Your task to perform on an android device: toggle airplane mode Image 0: 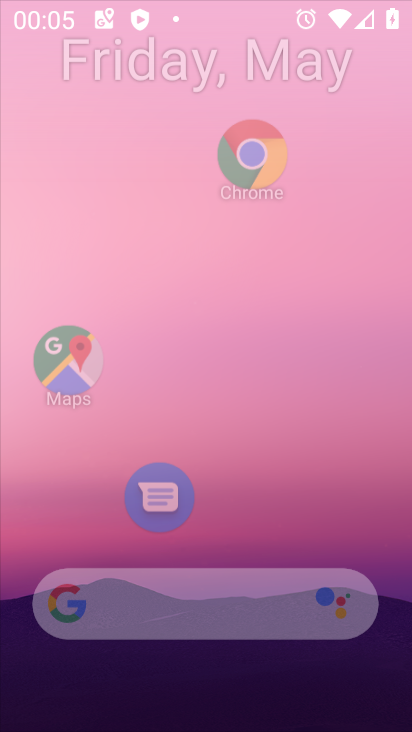
Step 0: drag from (221, 299) to (235, 56)
Your task to perform on an android device: toggle airplane mode Image 1: 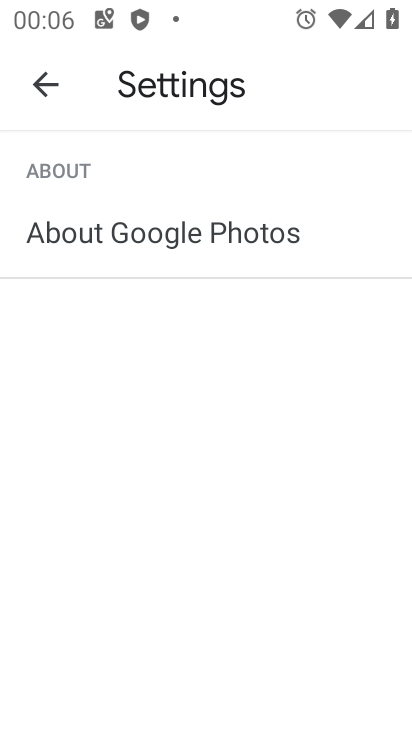
Step 1: press home button
Your task to perform on an android device: toggle airplane mode Image 2: 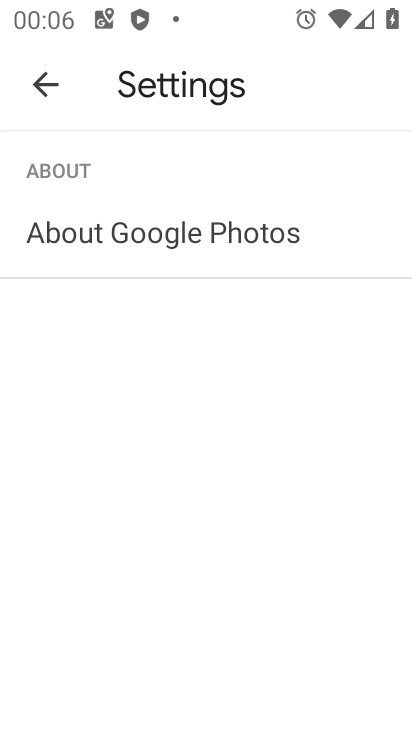
Step 2: press home button
Your task to perform on an android device: toggle airplane mode Image 3: 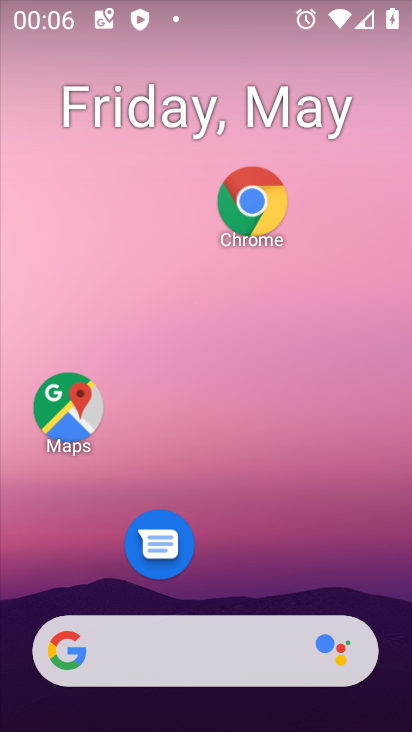
Step 3: drag from (238, 14) to (250, 680)
Your task to perform on an android device: toggle airplane mode Image 4: 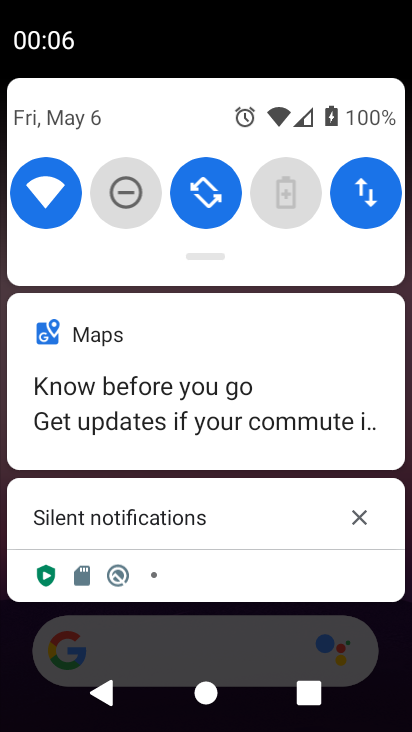
Step 4: drag from (225, 259) to (234, 721)
Your task to perform on an android device: toggle airplane mode Image 5: 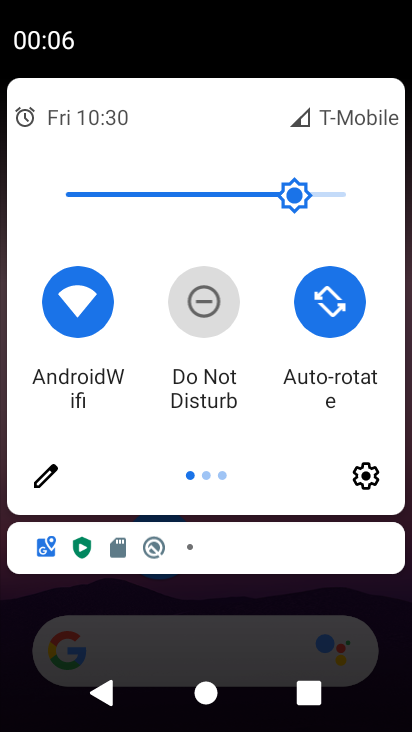
Step 5: drag from (352, 337) to (1, 555)
Your task to perform on an android device: toggle airplane mode Image 6: 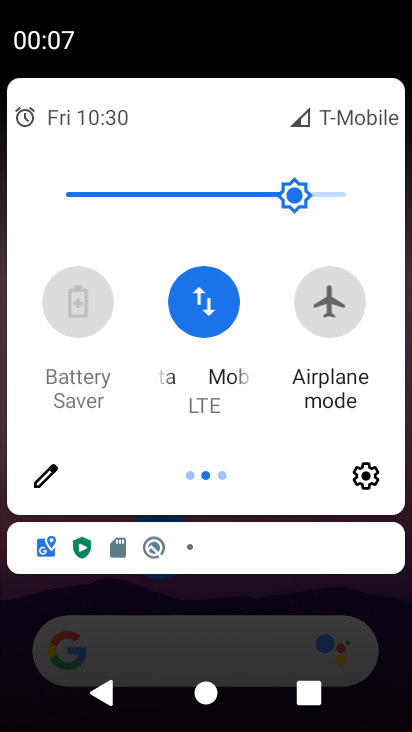
Step 6: click (328, 298)
Your task to perform on an android device: toggle airplane mode Image 7: 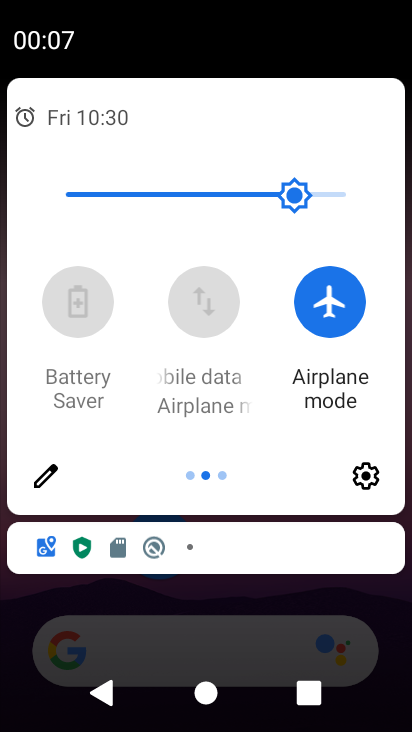
Step 7: task complete